Your task to perform on an android device: turn on bluetooth scan Image 0: 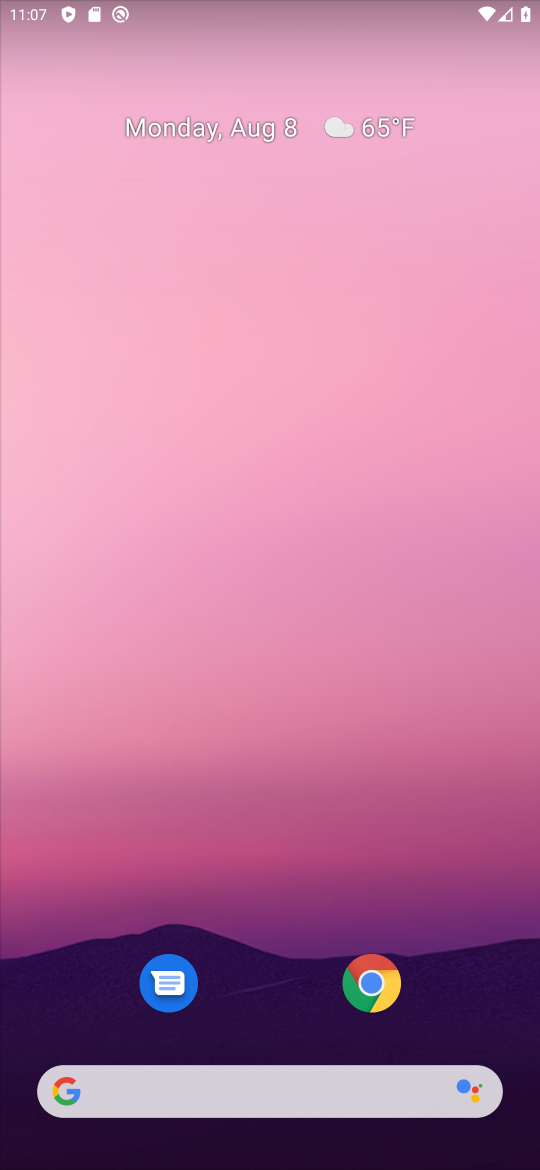
Step 0: drag from (249, 1024) to (187, 45)
Your task to perform on an android device: turn on bluetooth scan Image 1: 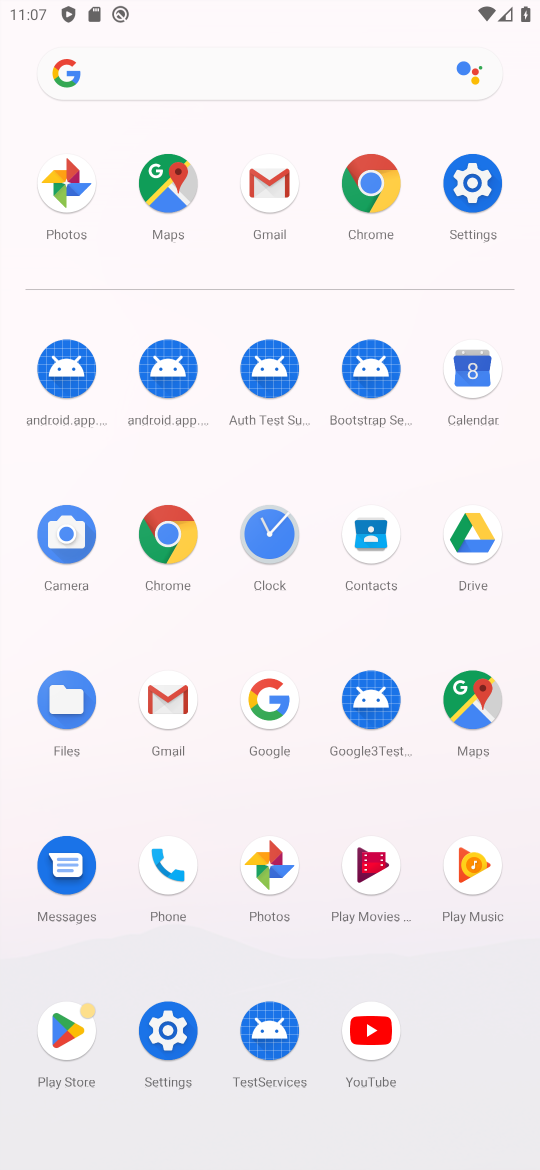
Step 1: click (183, 1069)
Your task to perform on an android device: turn on bluetooth scan Image 2: 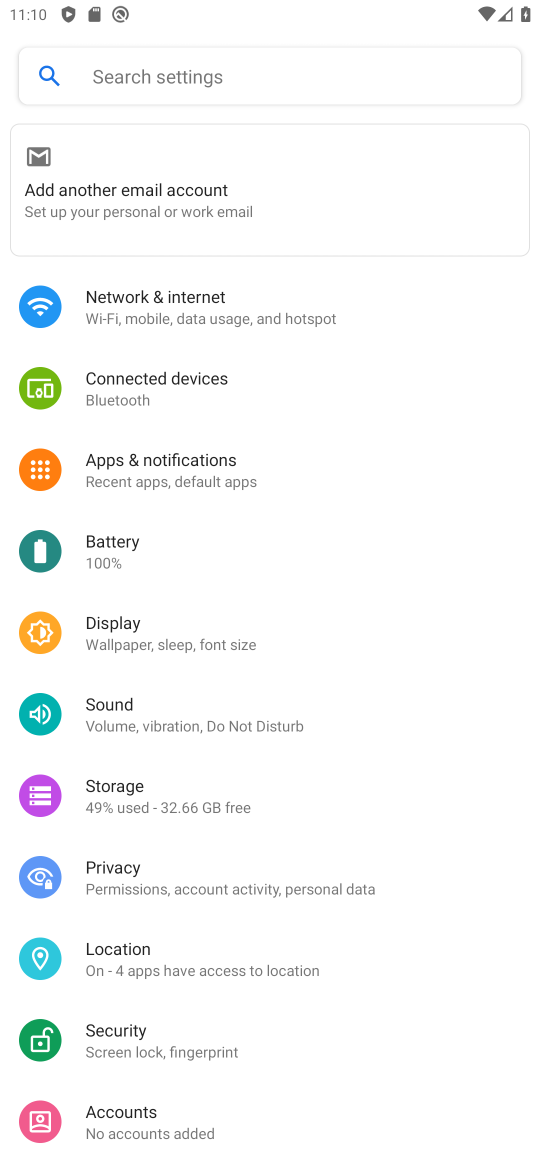
Step 2: task complete